Your task to perform on an android device: Open the phone app and click the voicemail tab. Image 0: 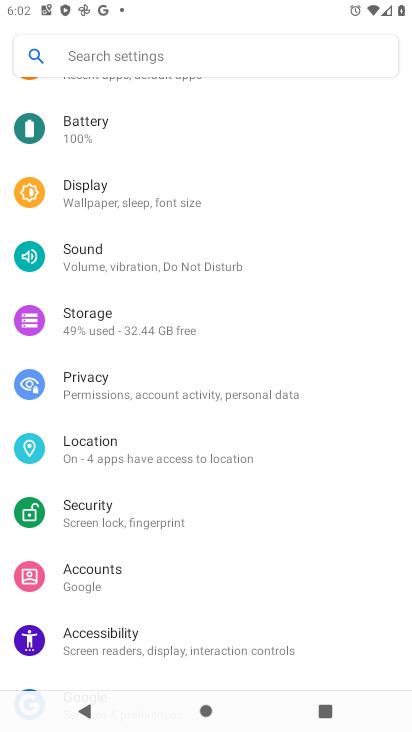
Step 0: press home button
Your task to perform on an android device: Open the phone app and click the voicemail tab. Image 1: 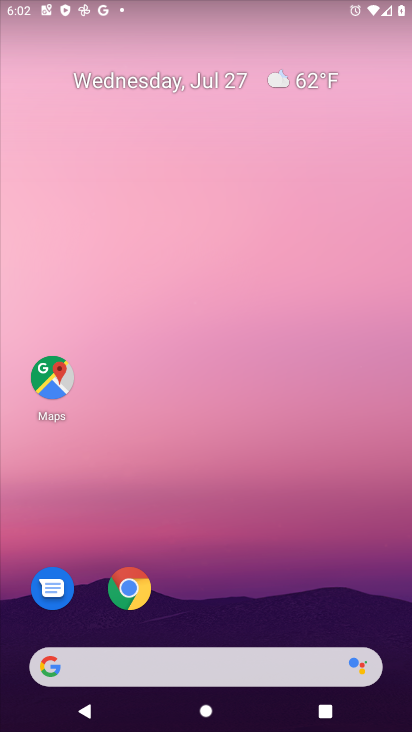
Step 1: drag from (227, 551) to (147, 173)
Your task to perform on an android device: Open the phone app and click the voicemail tab. Image 2: 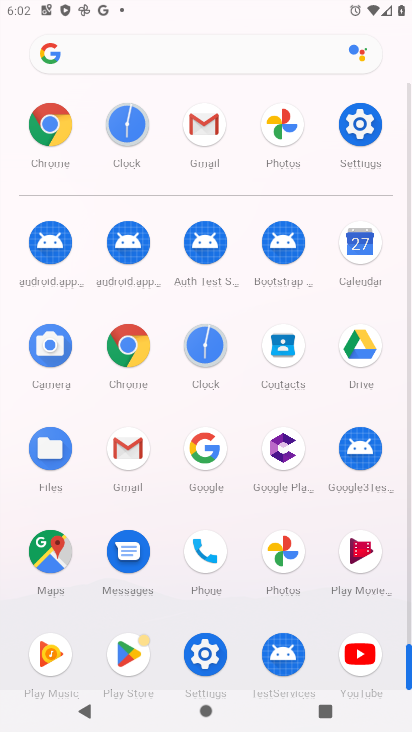
Step 2: click (208, 564)
Your task to perform on an android device: Open the phone app and click the voicemail tab. Image 3: 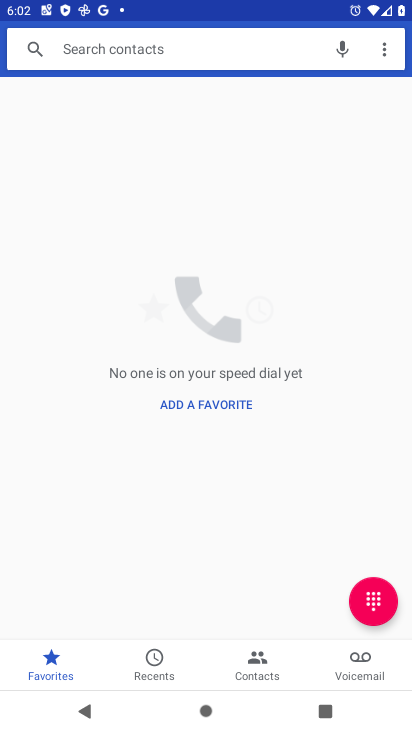
Step 3: click (372, 672)
Your task to perform on an android device: Open the phone app and click the voicemail tab. Image 4: 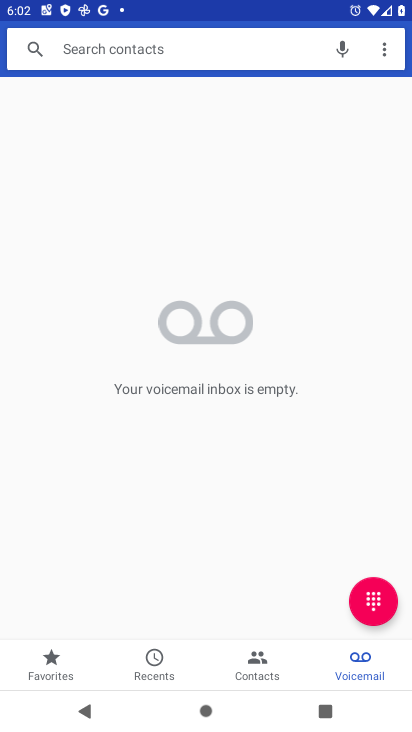
Step 4: task complete